Your task to perform on an android device: toggle improve location accuracy Image 0: 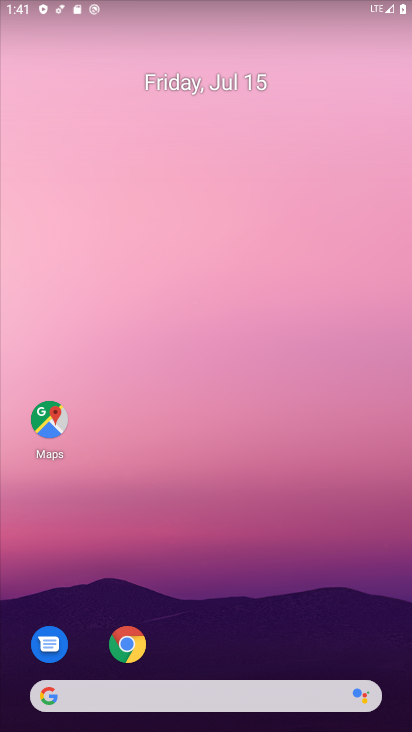
Step 0: drag from (396, 641) to (237, 50)
Your task to perform on an android device: toggle improve location accuracy Image 1: 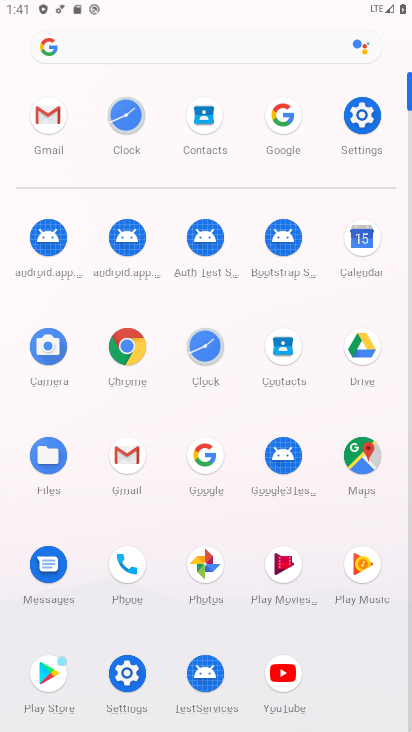
Step 1: click (370, 128)
Your task to perform on an android device: toggle improve location accuracy Image 2: 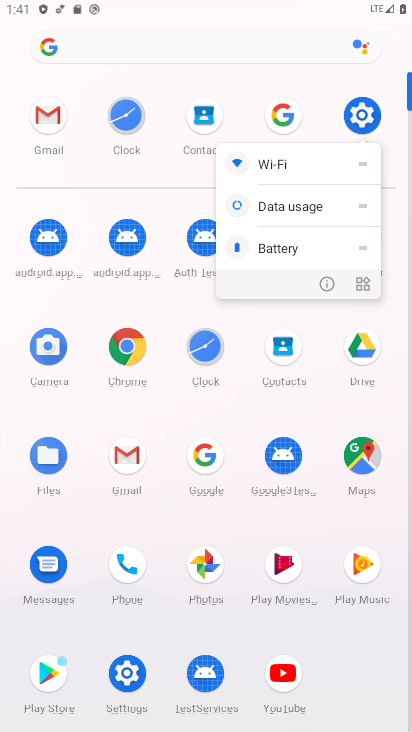
Step 2: click (370, 128)
Your task to perform on an android device: toggle improve location accuracy Image 3: 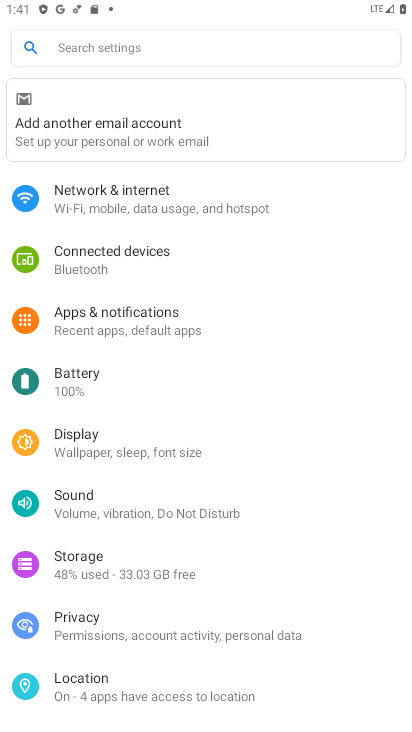
Step 3: click (89, 674)
Your task to perform on an android device: toggle improve location accuracy Image 4: 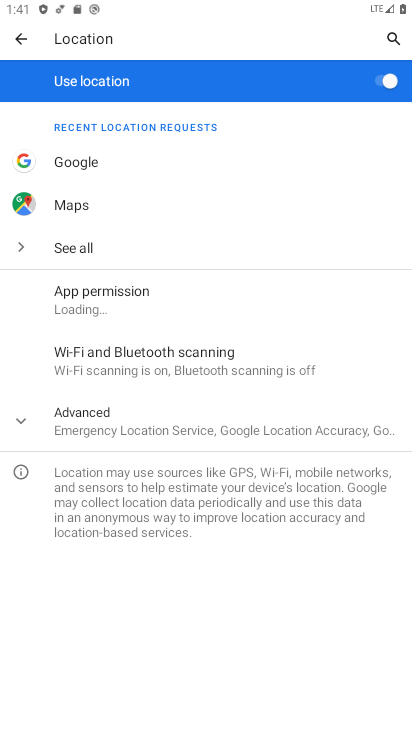
Step 4: click (90, 420)
Your task to perform on an android device: toggle improve location accuracy Image 5: 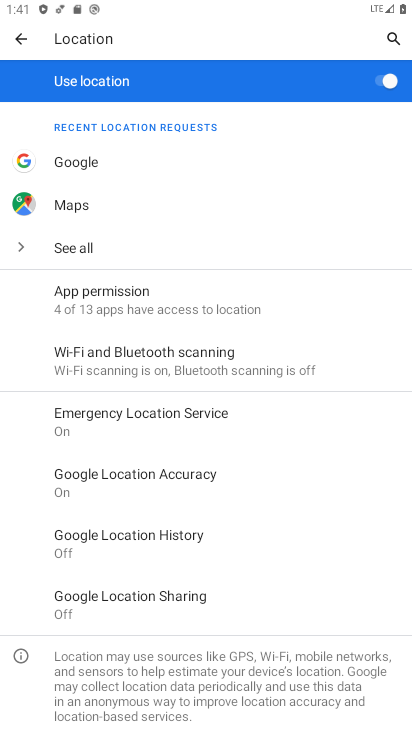
Step 5: click (126, 472)
Your task to perform on an android device: toggle improve location accuracy Image 6: 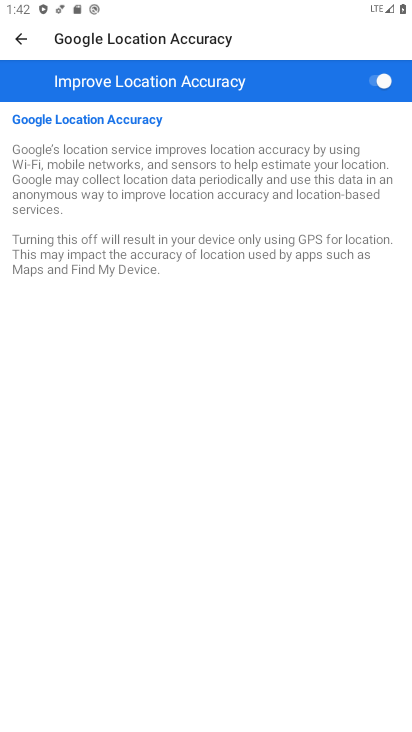
Step 6: click (393, 79)
Your task to perform on an android device: toggle improve location accuracy Image 7: 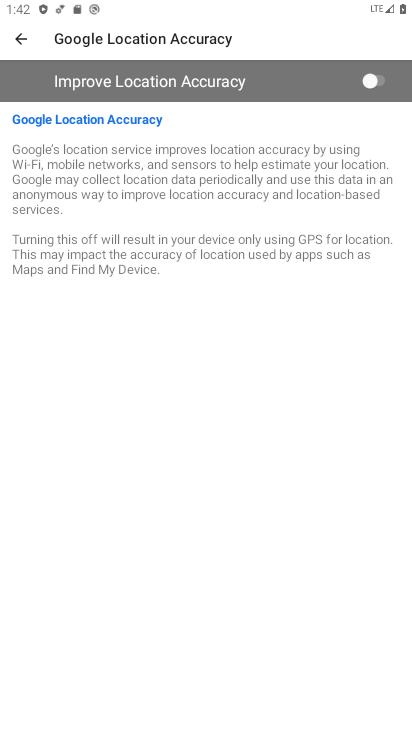
Step 7: task complete